Your task to perform on an android device: Add "logitech g pro" to the cart on newegg, then select checkout. Image 0: 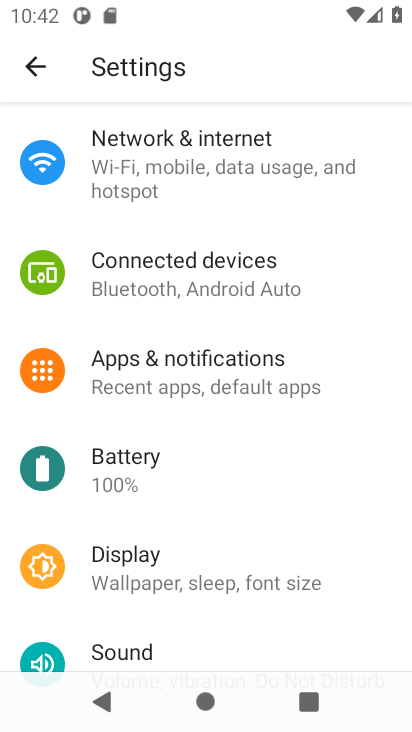
Step 0: press home button
Your task to perform on an android device: Add "logitech g pro" to the cart on newegg, then select checkout. Image 1: 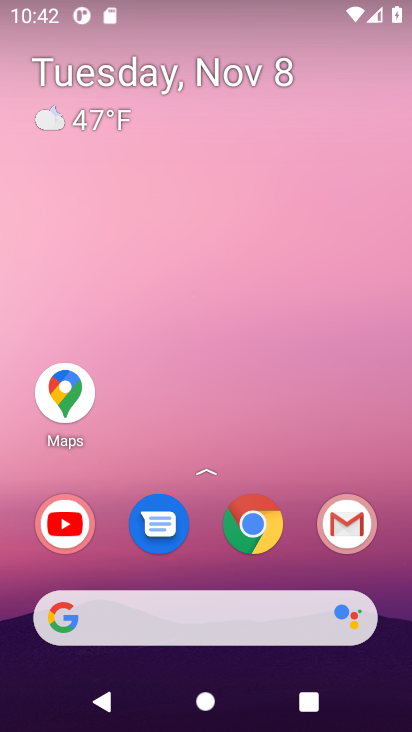
Step 1: click (259, 529)
Your task to perform on an android device: Add "logitech g pro" to the cart on newegg, then select checkout. Image 2: 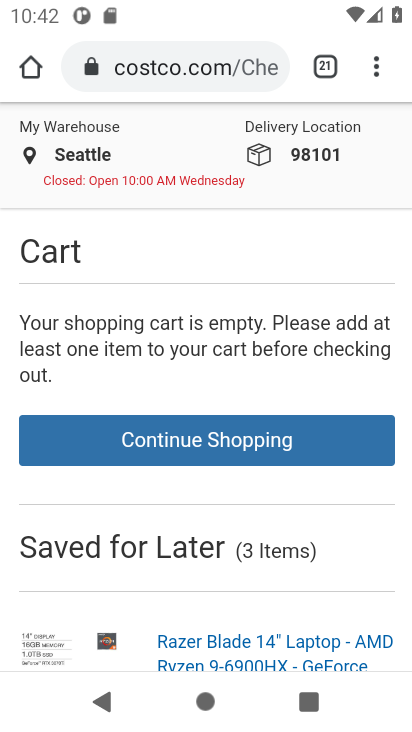
Step 2: click (197, 70)
Your task to perform on an android device: Add "logitech g pro" to the cart on newegg, then select checkout. Image 3: 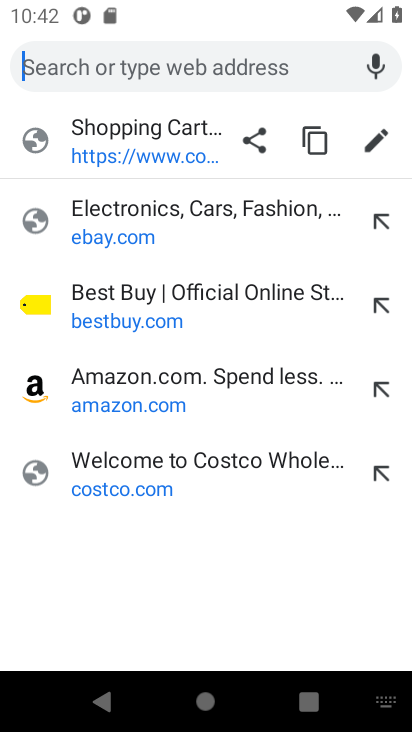
Step 3: type "newegg.com"
Your task to perform on an android device: Add "logitech g pro" to the cart on newegg, then select checkout. Image 4: 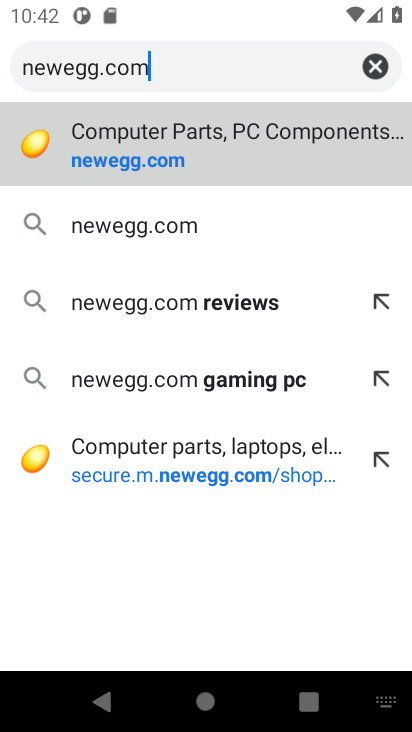
Step 4: click (118, 170)
Your task to perform on an android device: Add "logitech g pro" to the cart on newegg, then select checkout. Image 5: 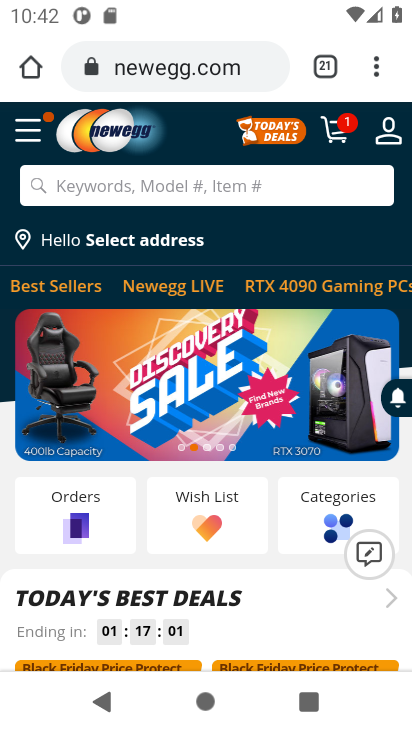
Step 5: click (179, 182)
Your task to perform on an android device: Add "logitech g pro" to the cart on newegg, then select checkout. Image 6: 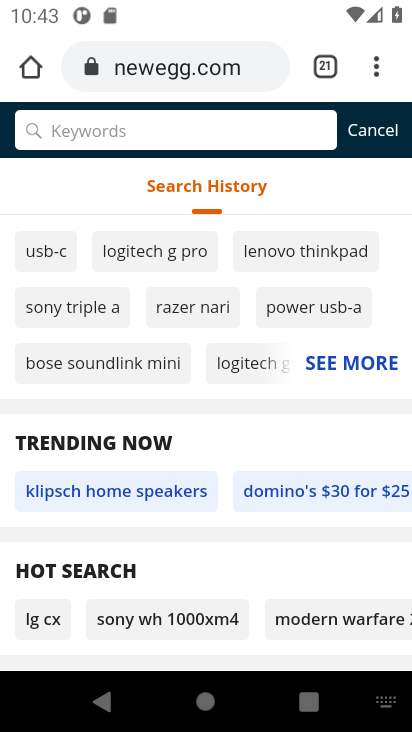
Step 6: type "logitech g pro"
Your task to perform on an android device: Add "logitech g pro" to the cart on newegg, then select checkout. Image 7: 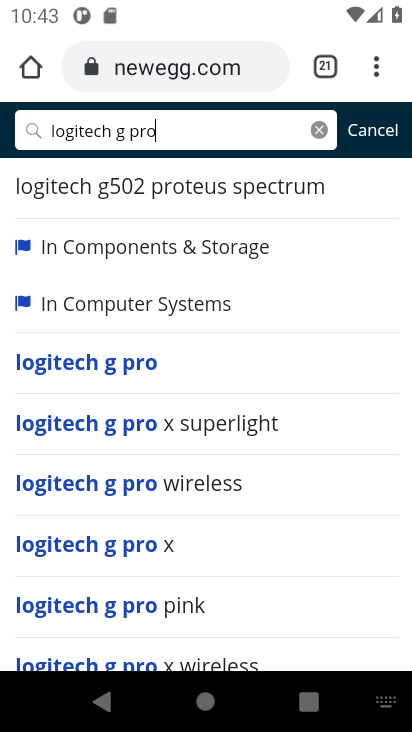
Step 7: click (84, 371)
Your task to perform on an android device: Add "logitech g pro" to the cart on newegg, then select checkout. Image 8: 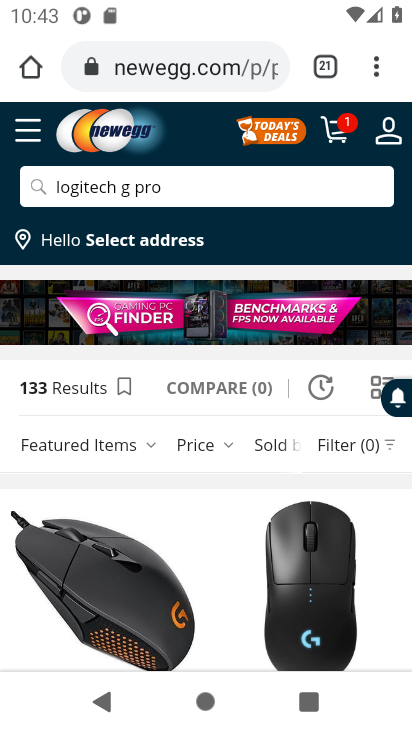
Step 8: drag from (175, 597) to (181, 346)
Your task to perform on an android device: Add "logitech g pro" to the cart on newegg, then select checkout. Image 9: 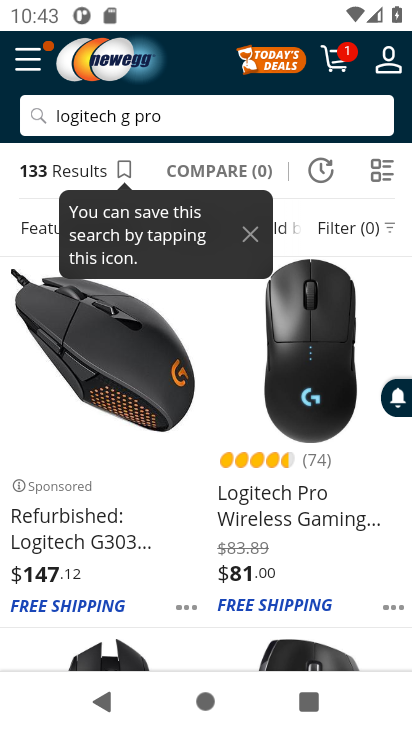
Step 9: drag from (119, 526) to (119, 310)
Your task to perform on an android device: Add "logitech g pro" to the cart on newegg, then select checkout. Image 10: 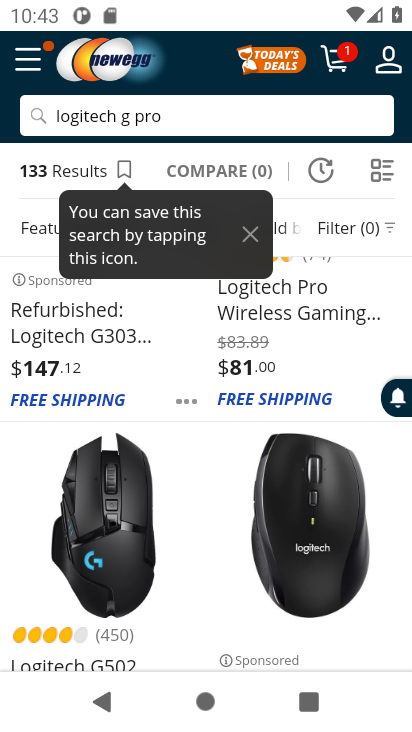
Step 10: drag from (106, 494) to (105, 286)
Your task to perform on an android device: Add "logitech g pro" to the cart on newegg, then select checkout. Image 11: 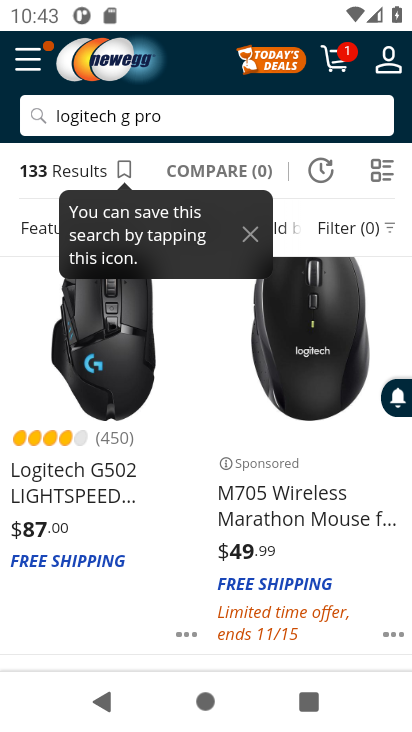
Step 11: drag from (97, 514) to (94, 310)
Your task to perform on an android device: Add "logitech g pro" to the cart on newegg, then select checkout. Image 12: 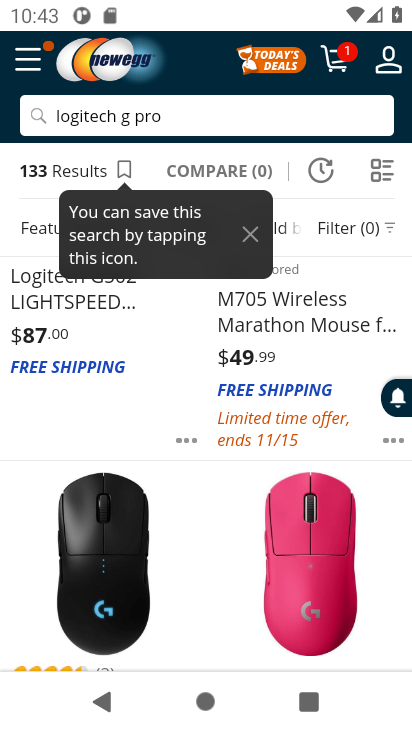
Step 12: drag from (88, 523) to (87, 282)
Your task to perform on an android device: Add "logitech g pro" to the cart on newegg, then select checkout. Image 13: 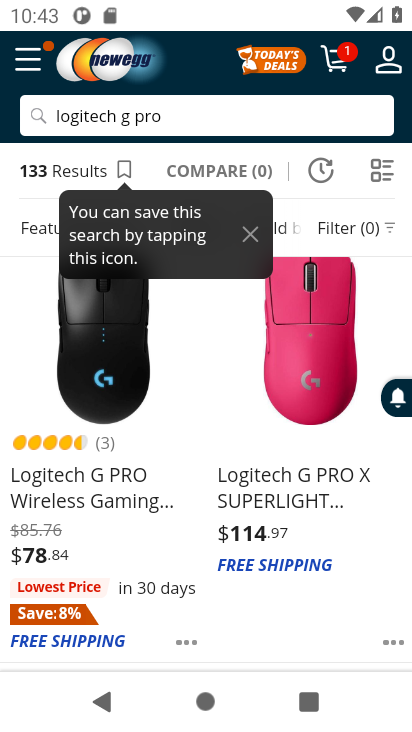
Step 13: click (85, 394)
Your task to perform on an android device: Add "logitech g pro" to the cart on newegg, then select checkout. Image 14: 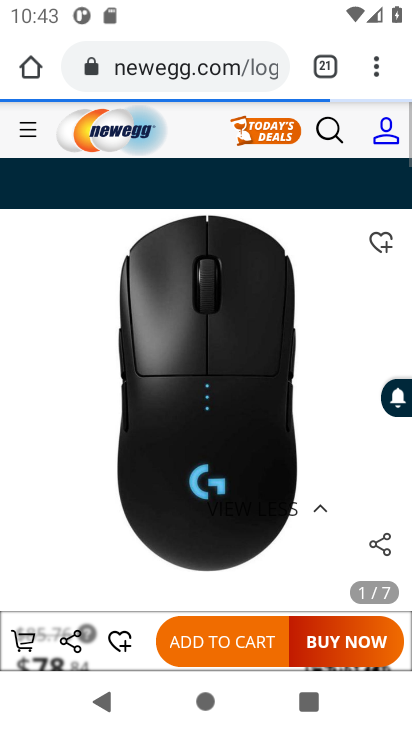
Step 14: drag from (215, 542) to (210, 392)
Your task to perform on an android device: Add "logitech g pro" to the cart on newegg, then select checkout. Image 15: 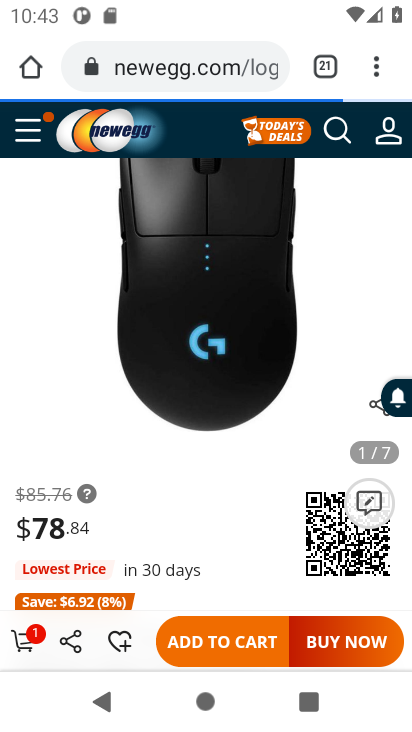
Step 15: click (222, 645)
Your task to perform on an android device: Add "logitech g pro" to the cart on newegg, then select checkout. Image 16: 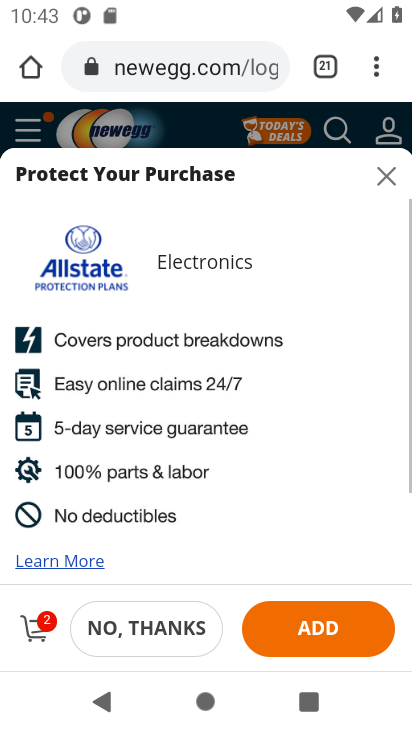
Step 16: click (44, 633)
Your task to perform on an android device: Add "logitech g pro" to the cart on newegg, then select checkout. Image 17: 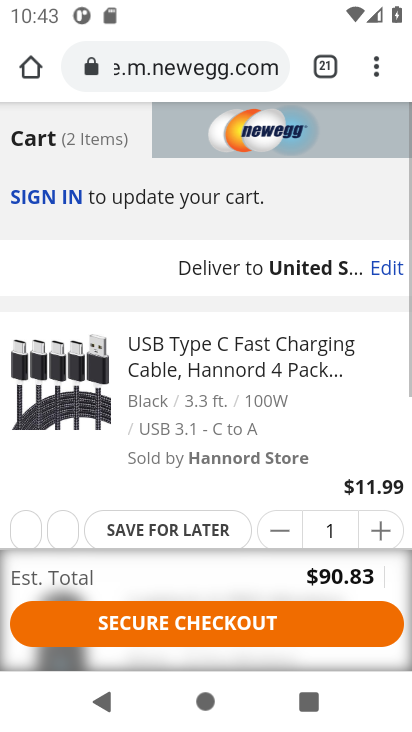
Step 17: drag from (228, 493) to (221, 303)
Your task to perform on an android device: Add "logitech g pro" to the cart on newegg, then select checkout. Image 18: 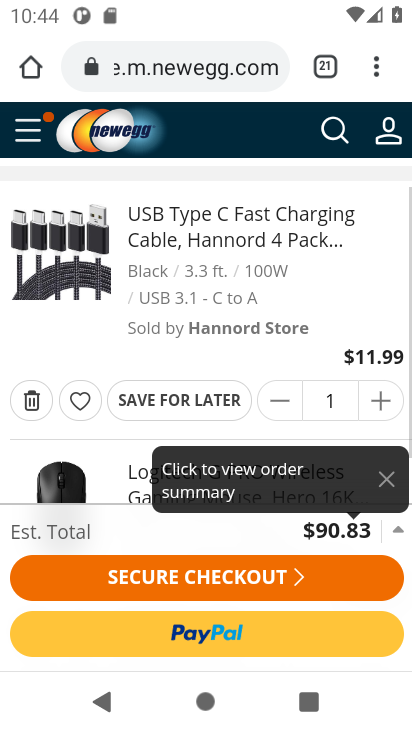
Step 18: click (199, 619)
Your task to perform on an android device: Add "logitech g pro" to the cart on newegg, then select checkout. Image 19: 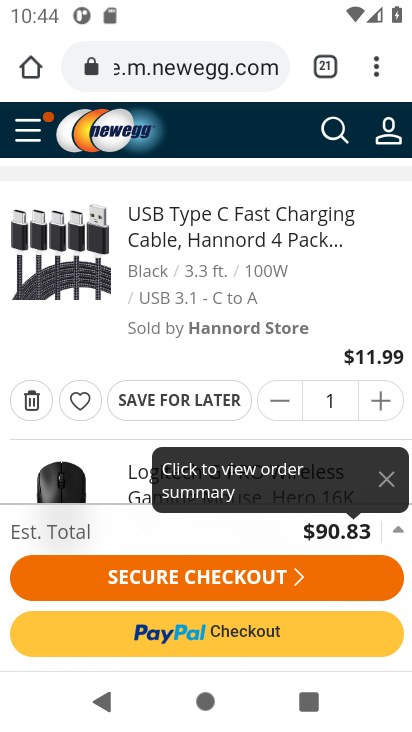
Step 19: click (216, 580)
Your task to perform on an android device: Add "logitech g pro" to the cart on newegg, then select checkout. Image 20: 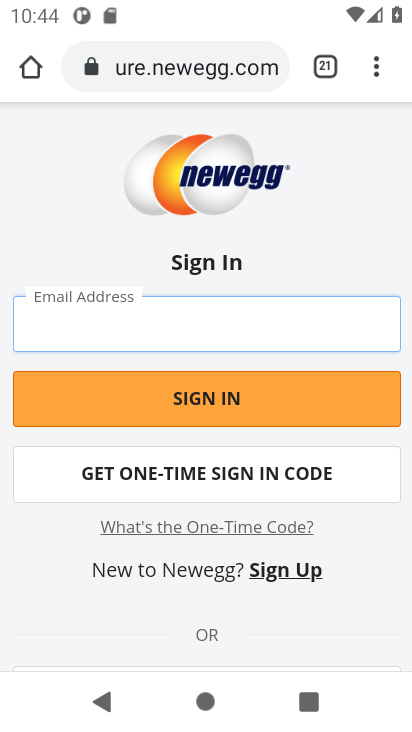
Step 20: task complete